Your task to perform on an android device: Turn off the flashlight Image 0: 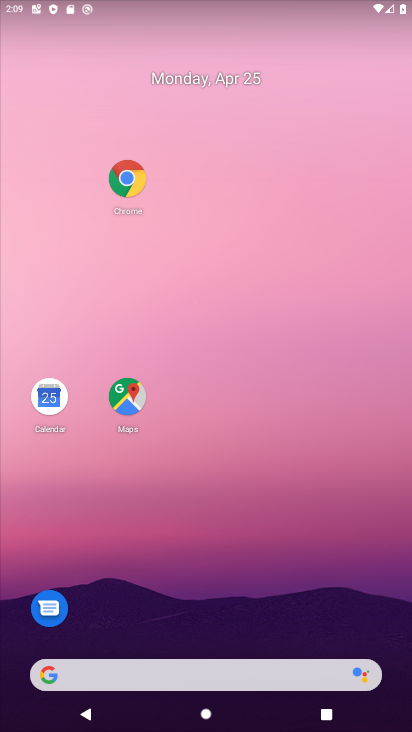
Step 0: drag from (182, 644) to (260, 206)
Your task to perform on an android device: Turn off the flashlight Image 1: 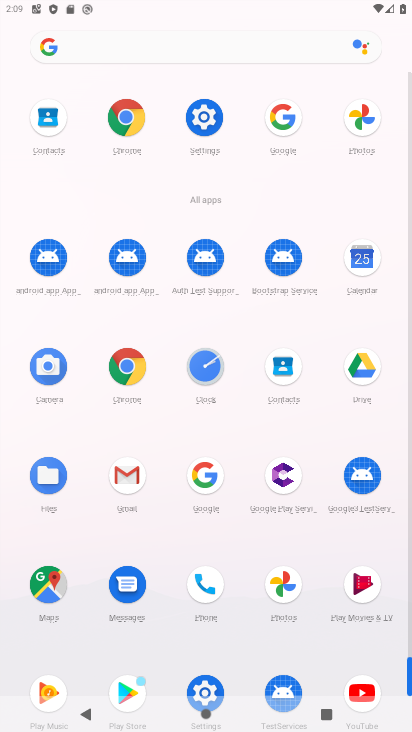
Step 1: click (215, 693)
Your task to perform on an android device: Turn off the flashlight Image 2: 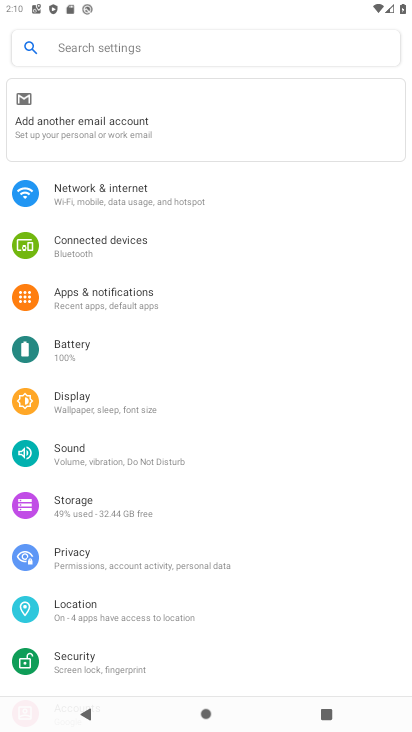
Step 2: click (145, 404)
Your task to perform on an android device: Turn off the flashlight Image 3: 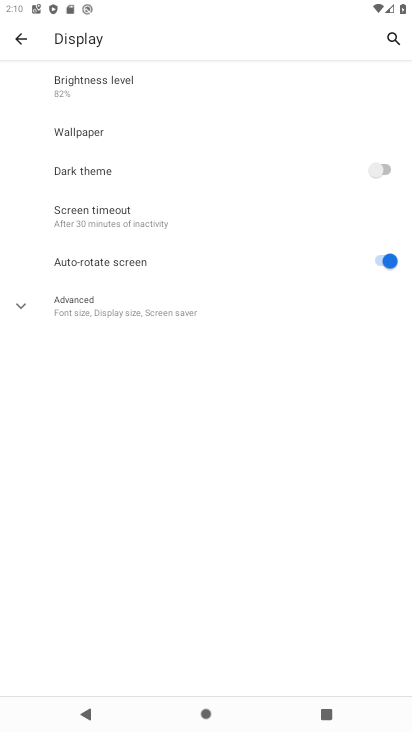
Step 3: task complete